Your task to perform on an android device: uninstall "Microsoft Excel" Image 0: 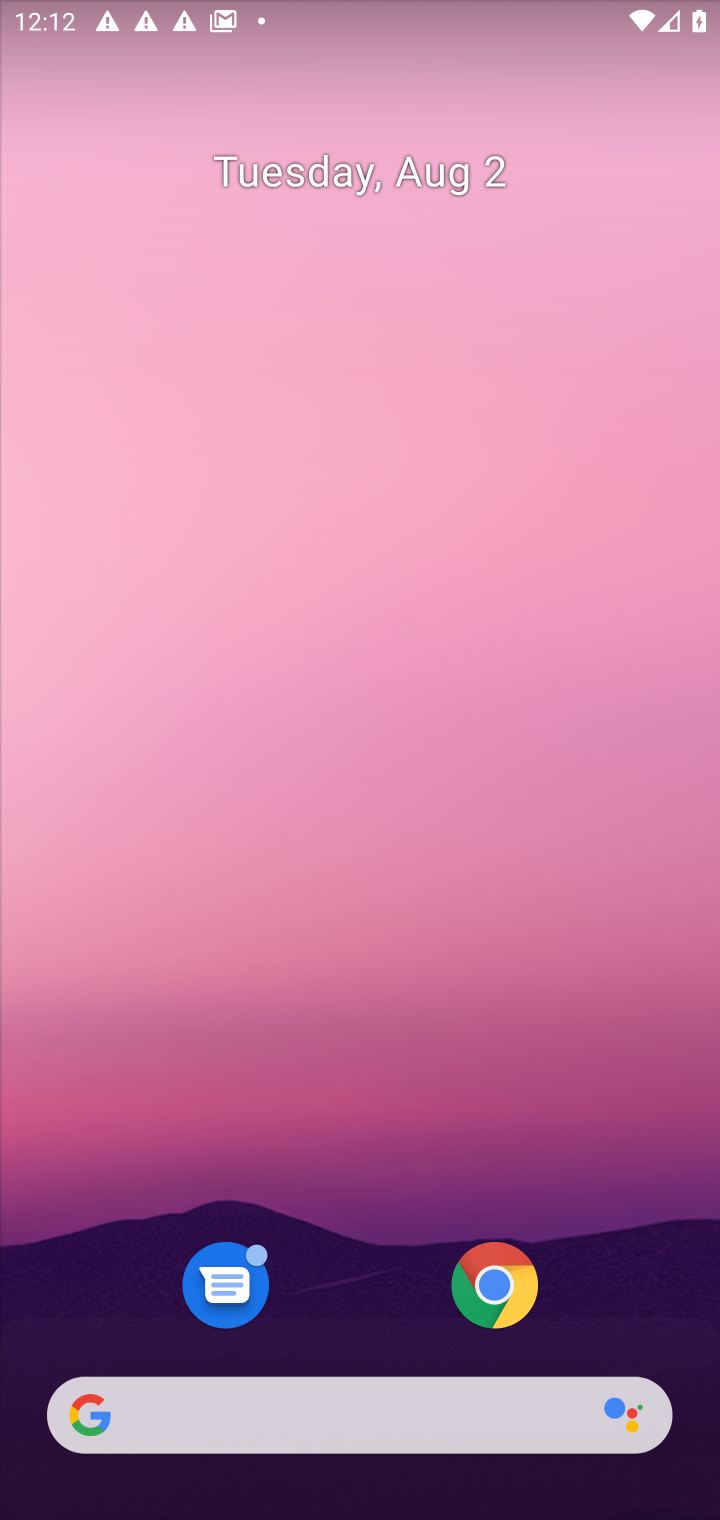
Step 0: drag from (630, 1139) to (521, 352)
Your task to perform on an android device: uninstall "Microsoft Excel" Image 1: 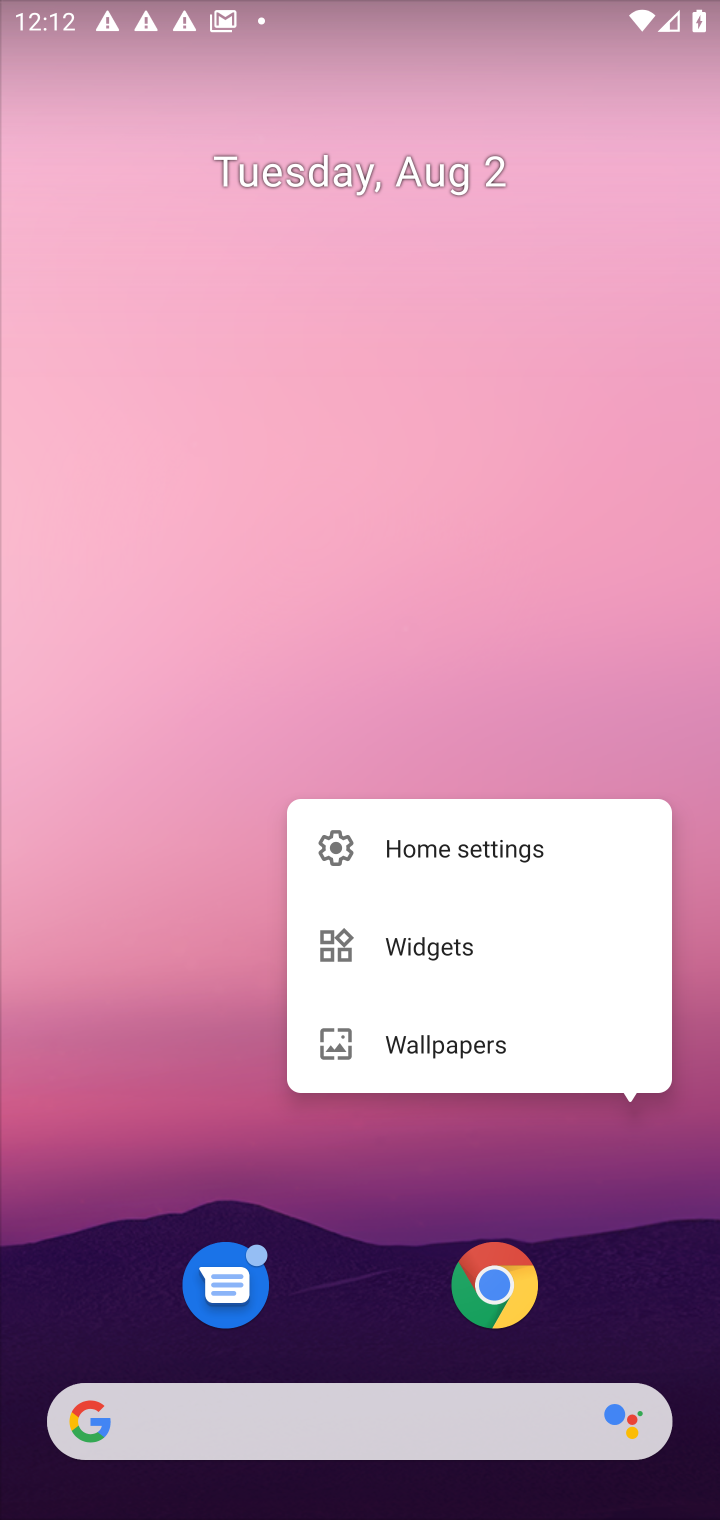
Step 1: click (545, 420)
Your task to perform on an android device: uninstall "Microsoft Excel" Image 2: 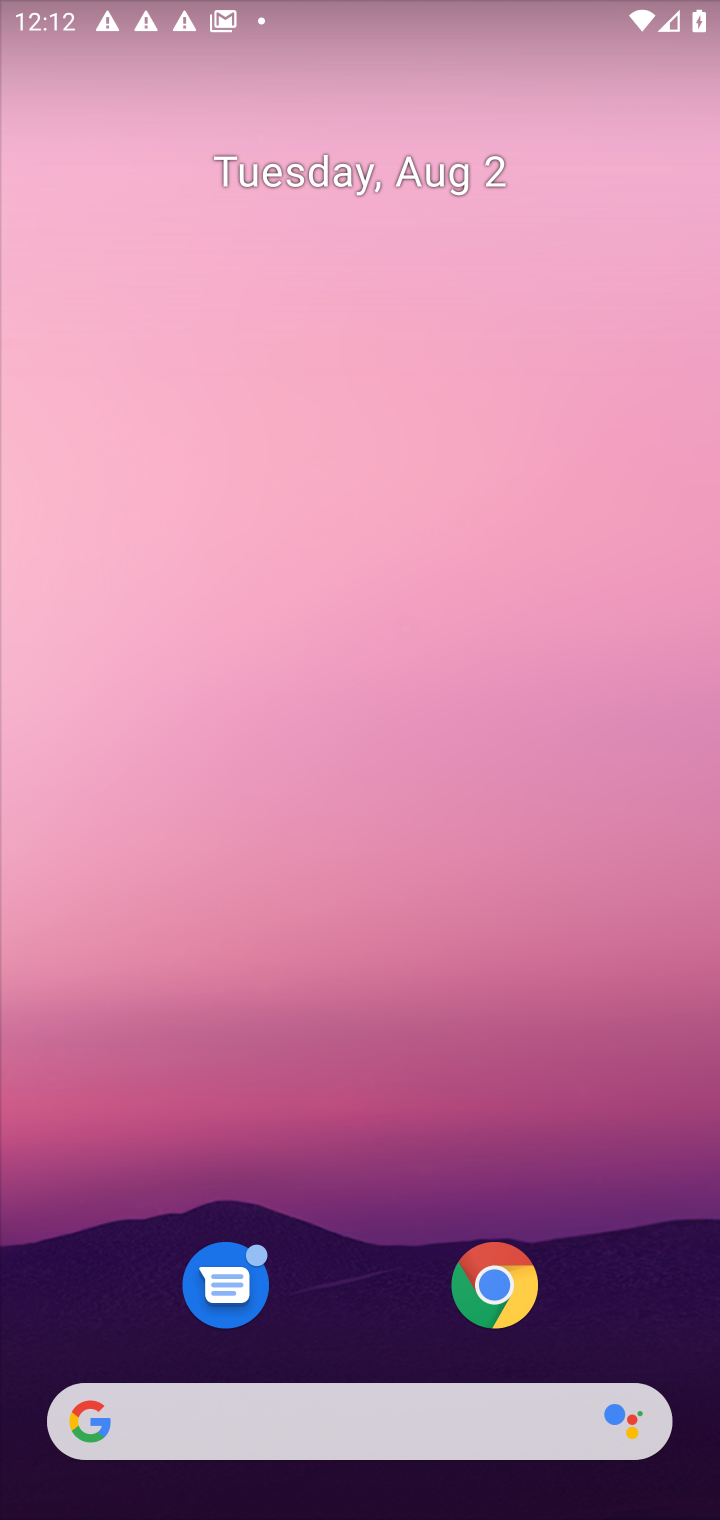
Step 2: drag from (385, 1285) to (437, 288)
Your task to perform on an android device: uninstall "Microsoft Excel" Image 3: 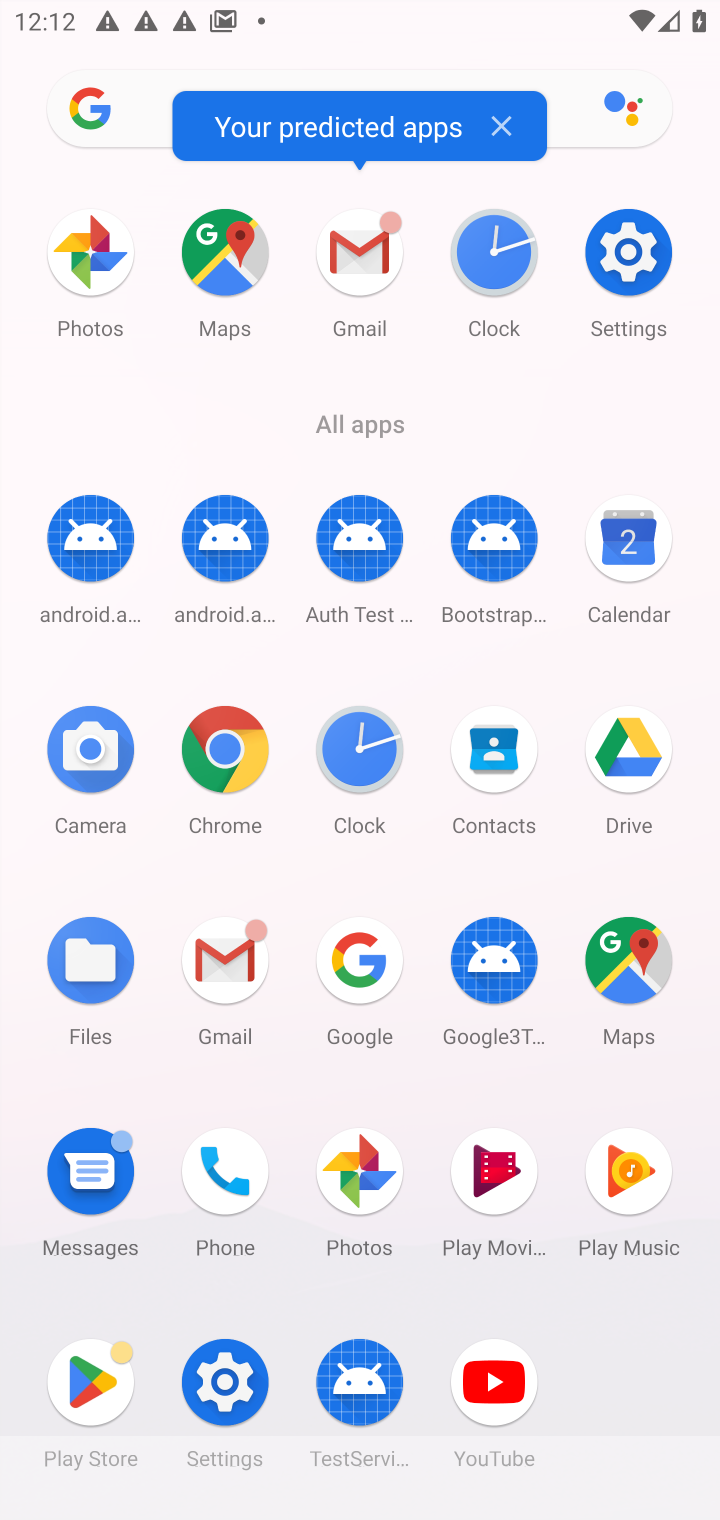
Step 3: click (95, 1379)
Your task to perform on an android device: uninstall "Microsoft Excel" Image 4: 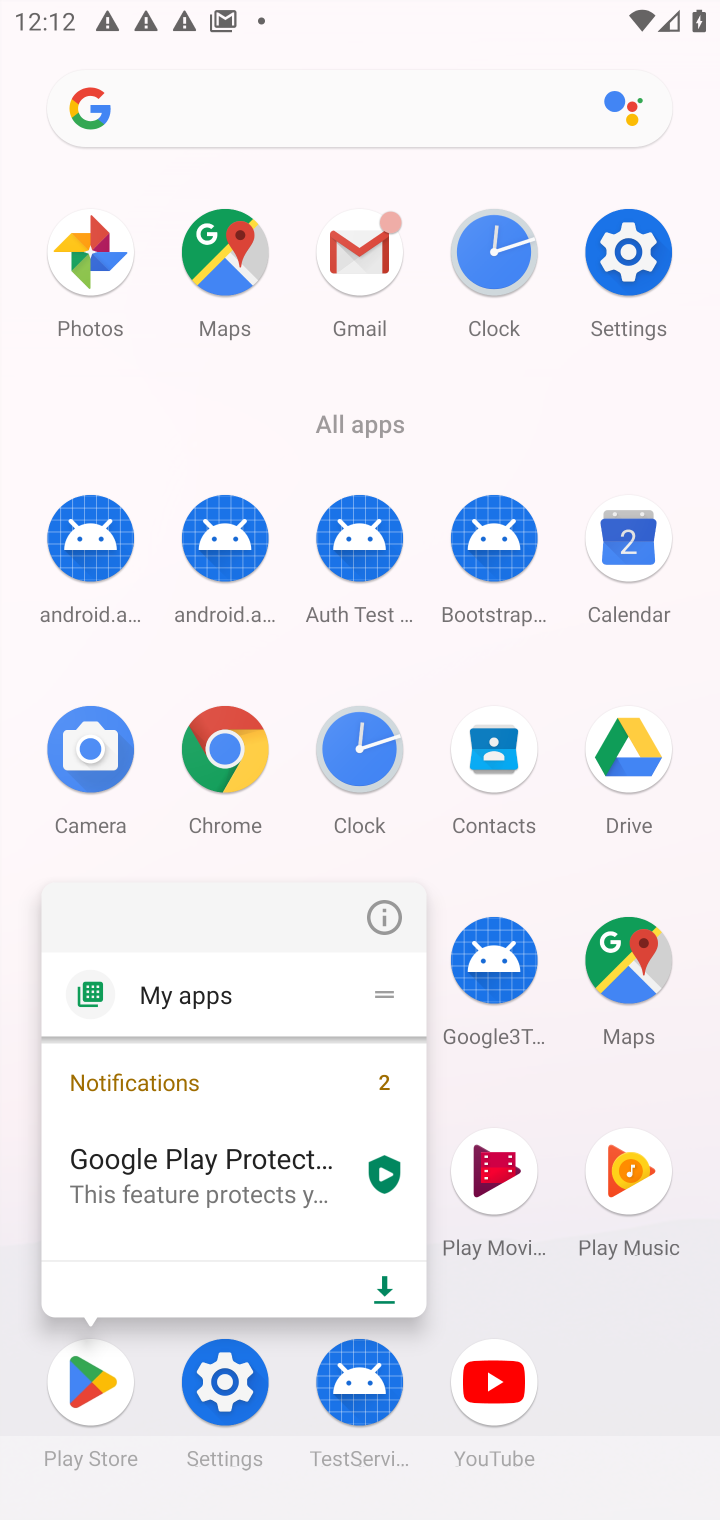
Step 4: click (102, 1384)
Your task to perform on an android device: uninstall "Microsoft Excel" Image 5: 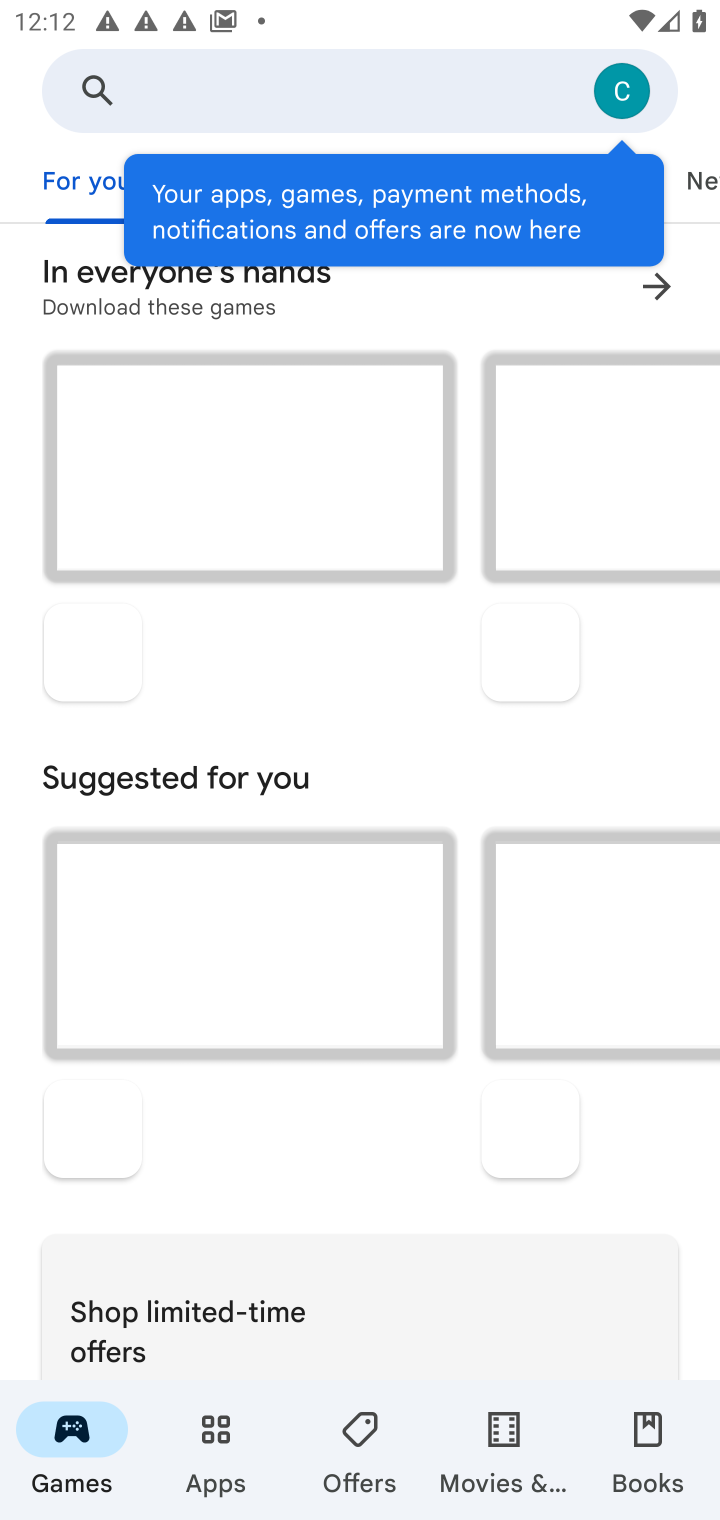
Step 5: click (351, 91)
Your task to perform on an android device: uninstall "Microsoft Excel" Image 6: 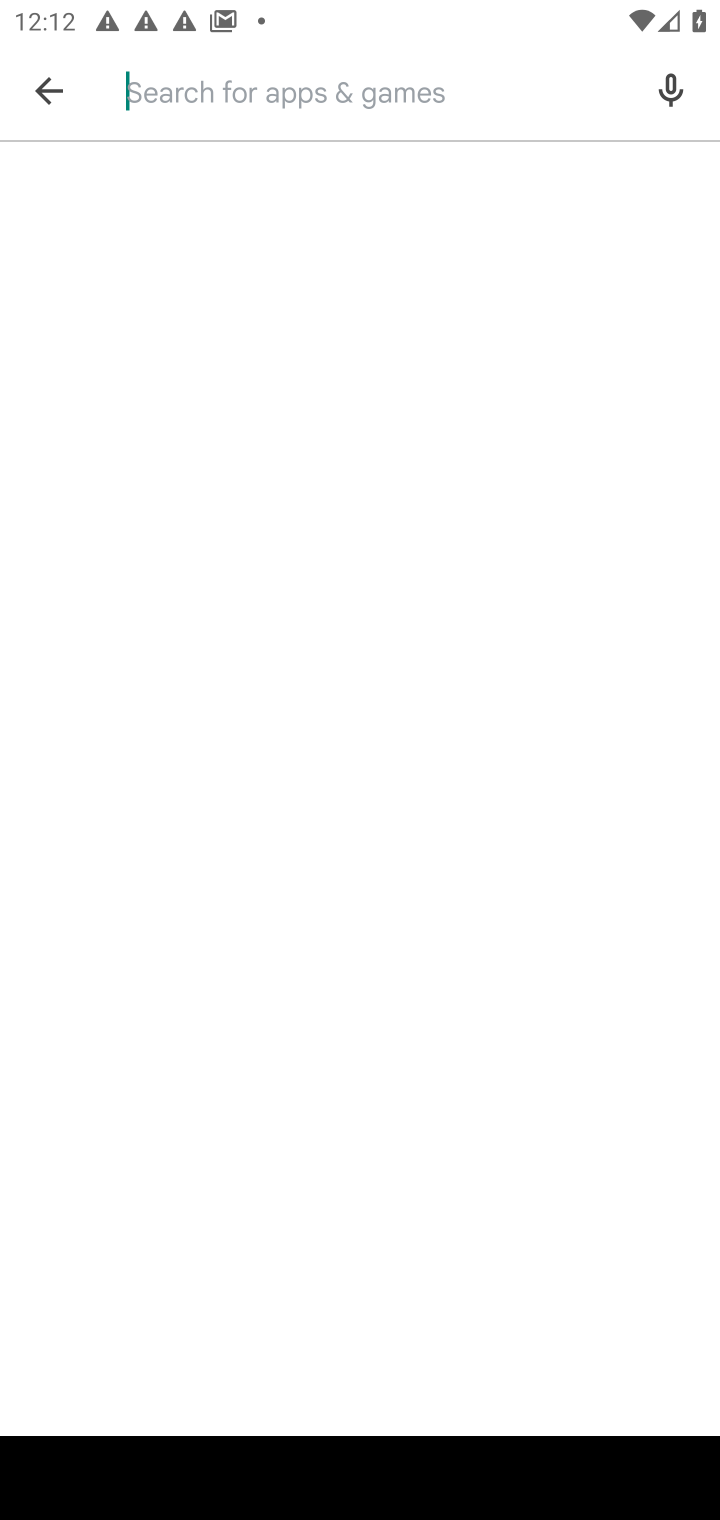
Step 6: type "Microsoft Excel"
Your task to perform on an android device: uninstall "Microsoft Excel" Image 7: 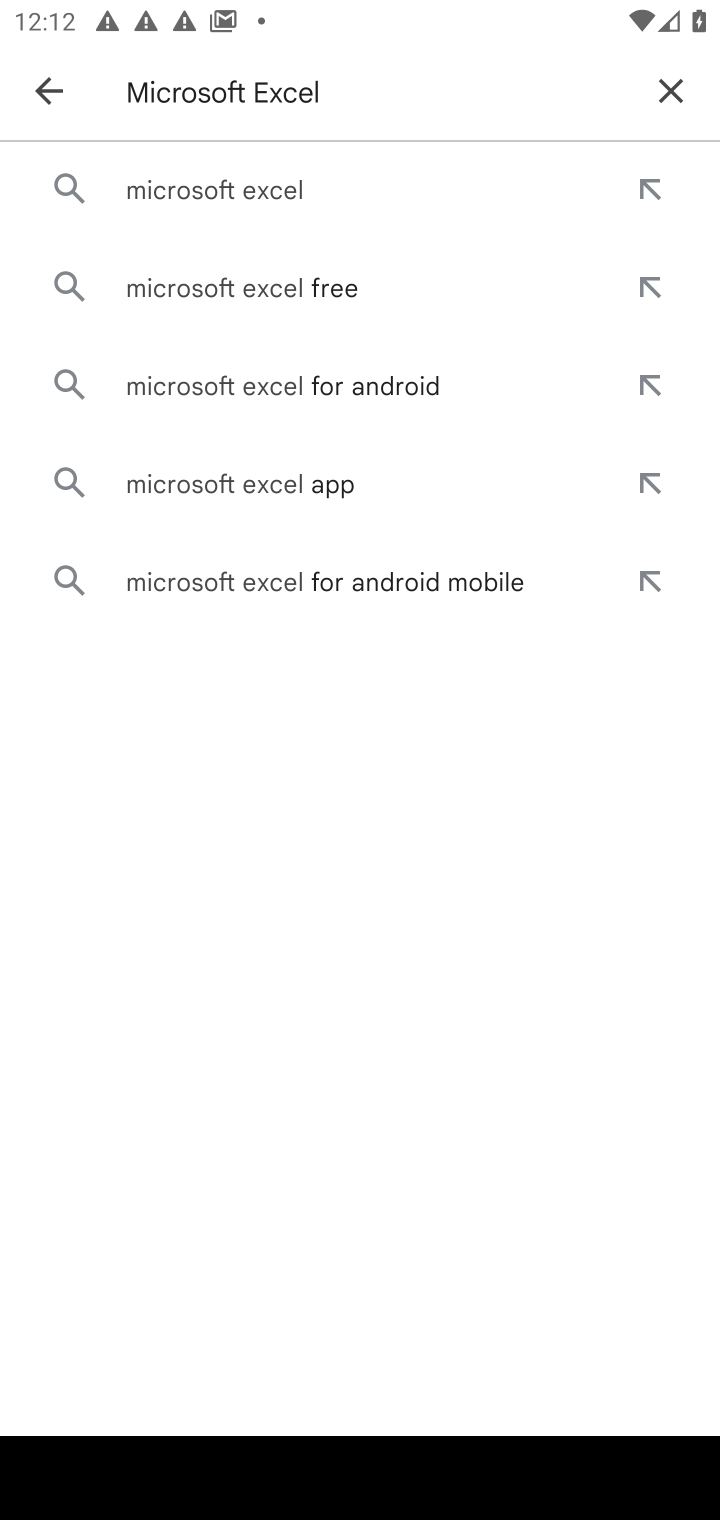
Step 7: press enter
Your task to perform on an android device: uninstall "Microsoft Excel" Image 8: 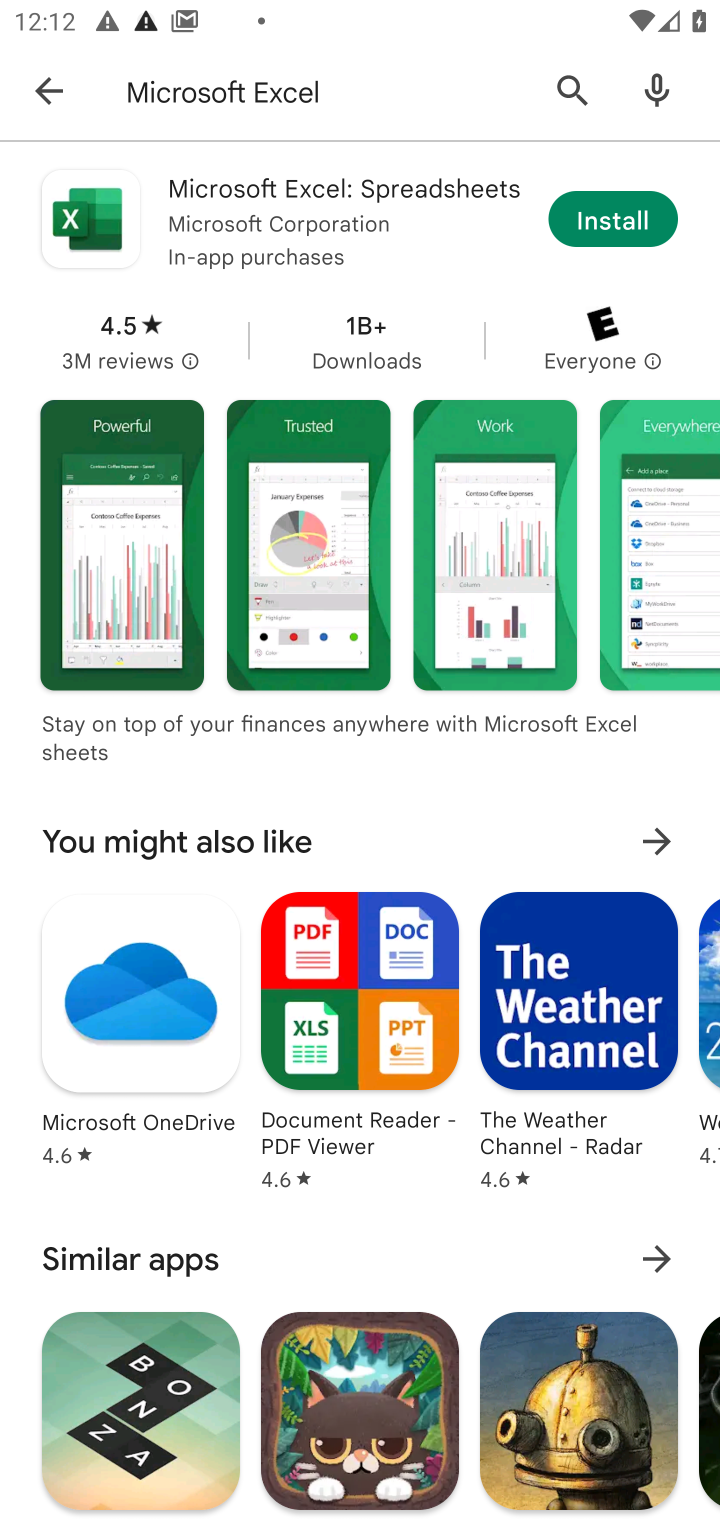
Step 8: task complete